Your task to perform on an android device: What's the weather? Image 0: 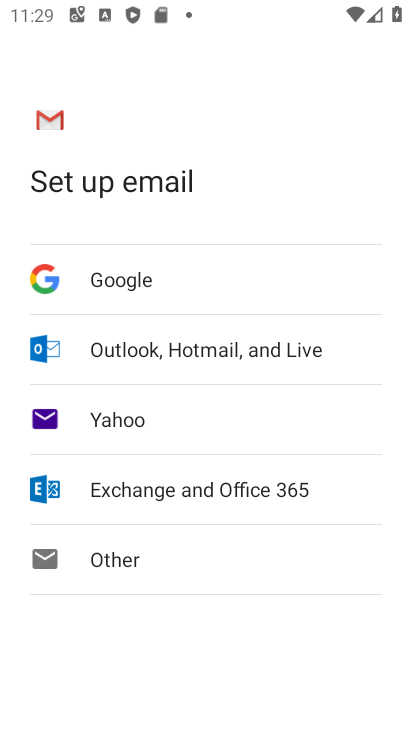
Step 0: press home button
Your task to perform on an android device: What's the weather? Image 1: 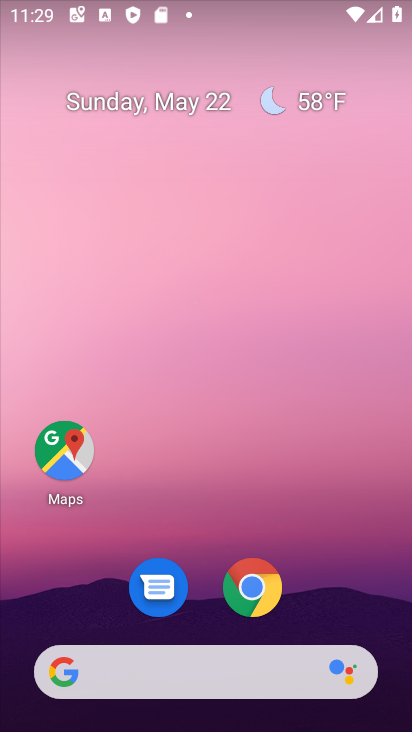
Step 1: click (263, 672)
Your task to perform on an android device: What's the weather? Image 2: 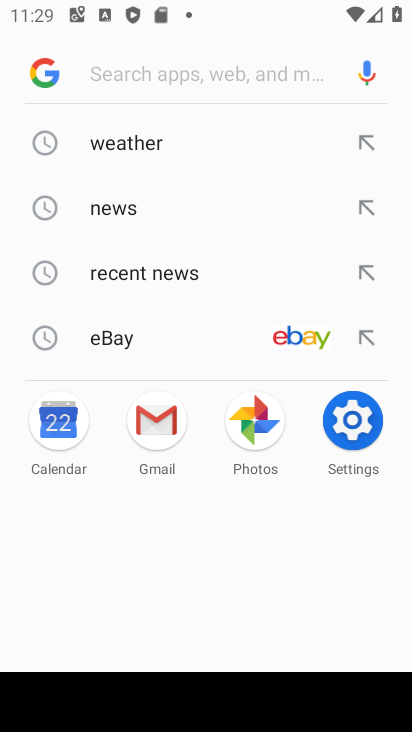
Step 2: click (140, 145)
Your task to perform on an android device: What's the weather? Image 3: 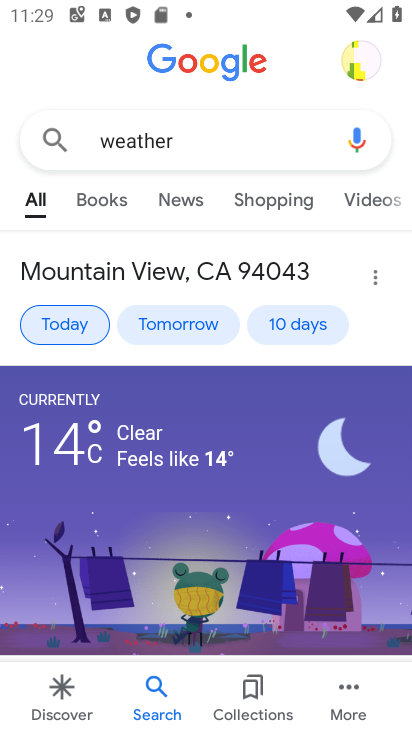
Step 3: click (68, 313)
Your task to perform on an android device: What's the weather? Image 4: 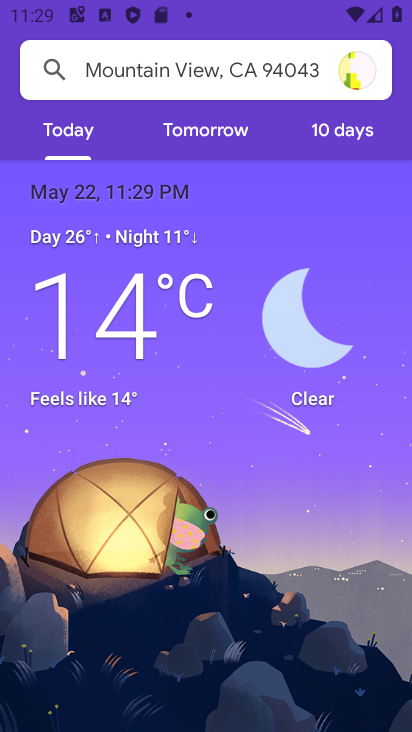
Step 4: task complete